Your task to perform on an android device: open chrome and create a bookmark for the current page Image 0: 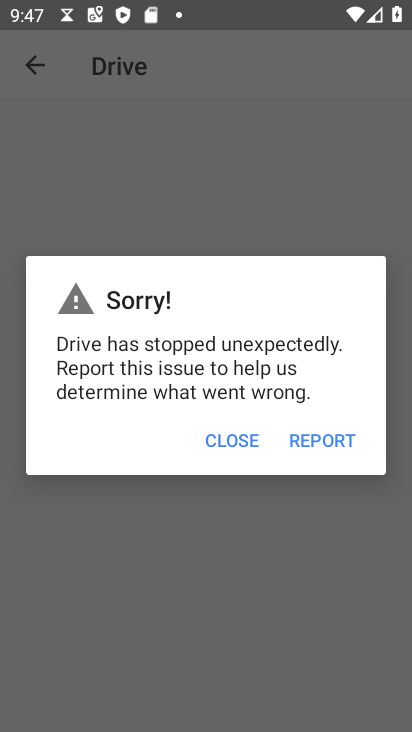
Step 0: press home button
Your task to perform on an android device: open chrome and create a bookmark for the current page Image 1: 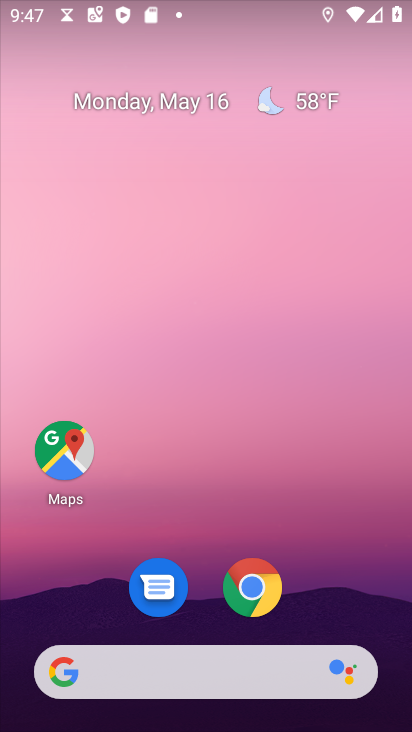
Step 1: click (274, 590)
Your task to perform on an android device: open chrome and create a bookmark for the current page Image 2: 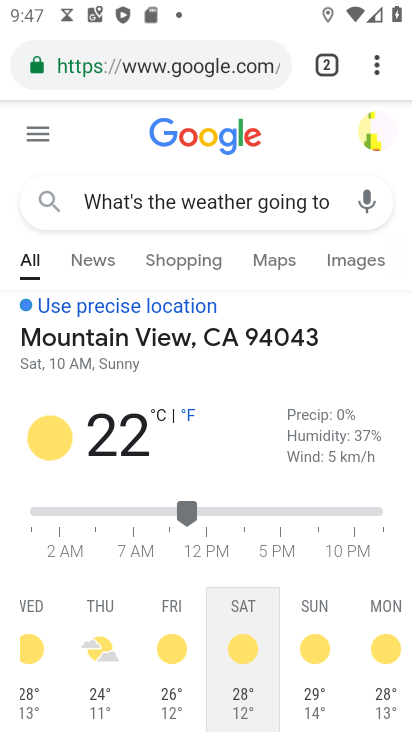
Step 2: click (371, 89)
Your task to perform on an android device: open chrome and create a bookmark for the current page Image 3: 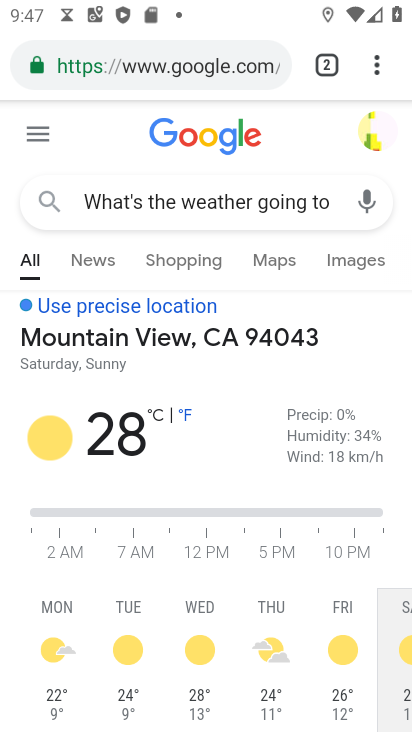
Step 3: click (376, 70)
Your task to perform on an android device: open chrome and create a bookmark for the current page Image 4: 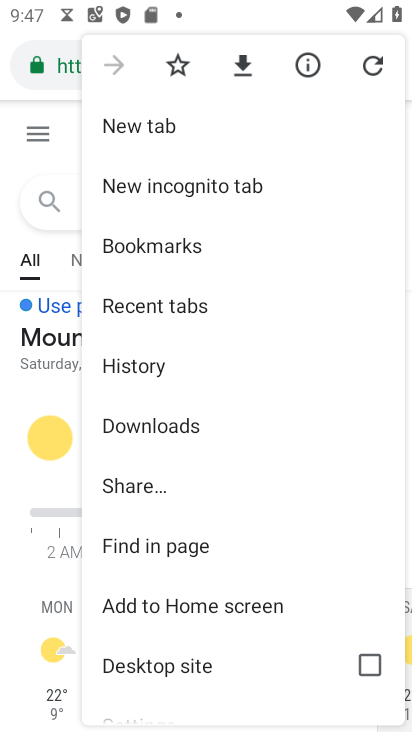
Step 4: click (180, 71)
Your task to perform on an android device: open chrome and create a bookmark for the current page Image 5: 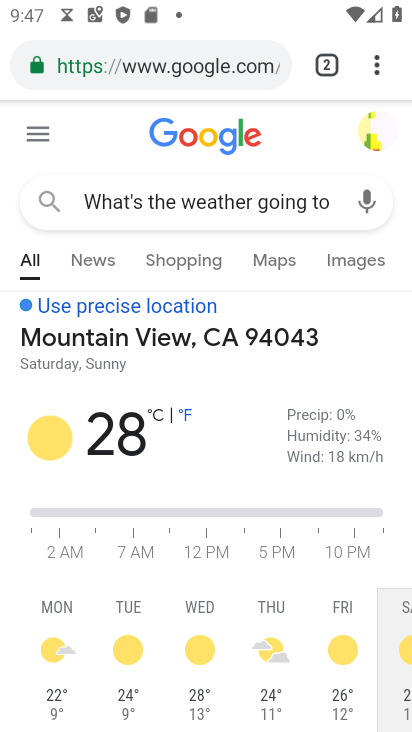
Step 5: task complete